Your task to perform on an android device: show emergency info Image 0: 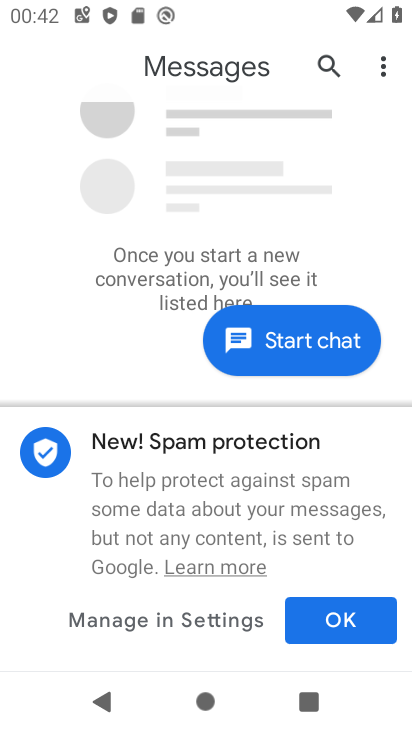
Step 0: press home button
Your task to perform on an android device: show emergency info Image 1: 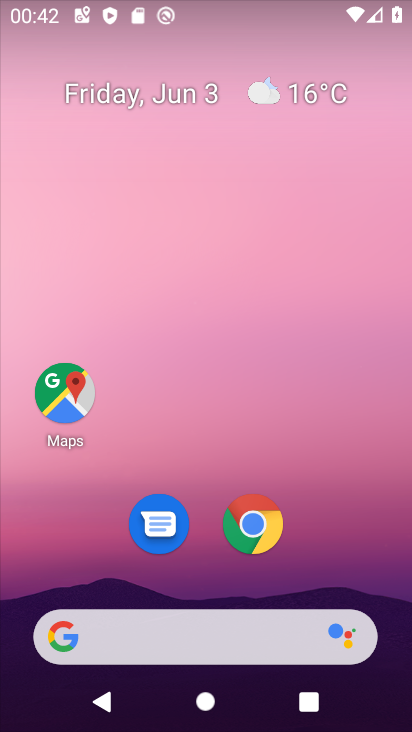
Step 1: drag from (197, 541) to (244, 66)
Your task to perform on an android device: show emergency info Image 2: 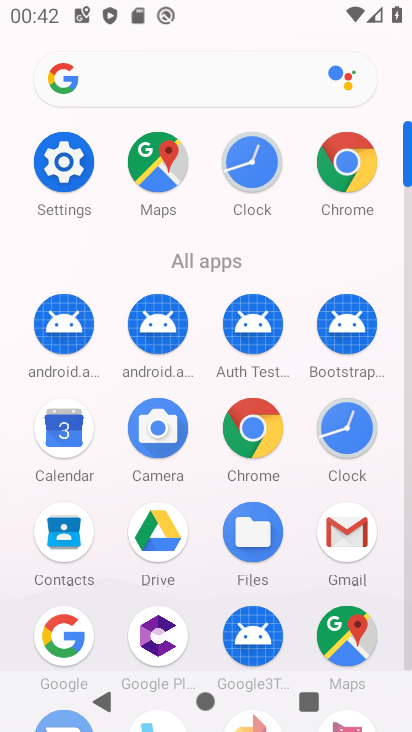
Step 2: click (58, 166)
Your task to perform on an android device: show emergency info Image 3: 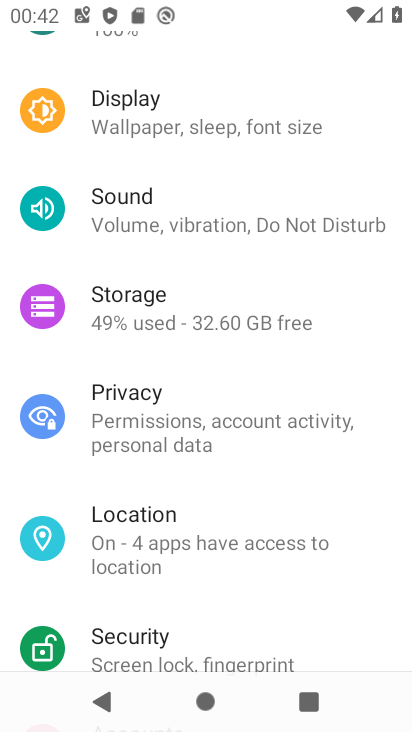
Step 3: drag from (221, 247) to (266, 79)
Your task to perform on an android device: show emergency info Image 4: 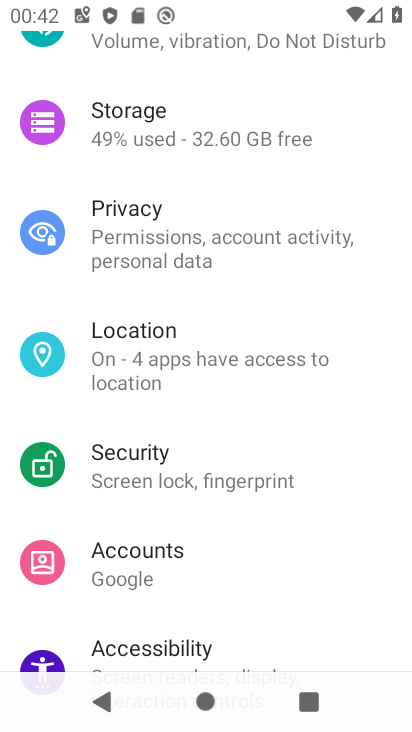
Step 4: drag from (226, 529) to (223, 89)
Your task to perform on an android device: show emergency info Image 5: 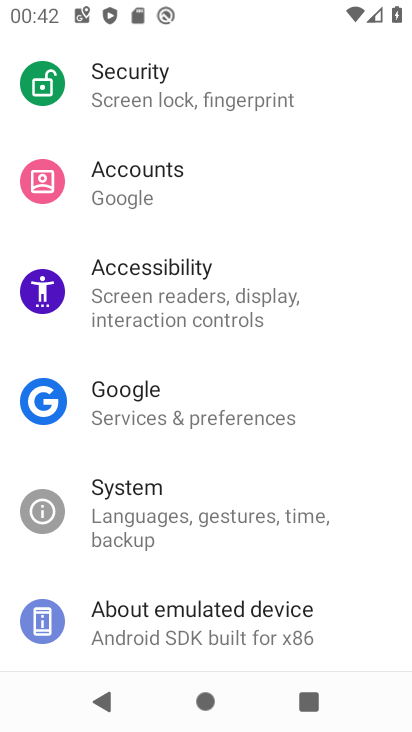
Step 5: click (207, 622)
Your task to perform on an android device: show emergency info Image 6: 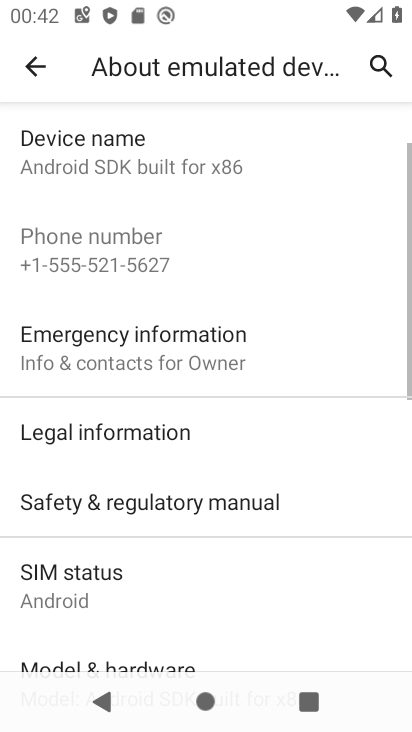
Step 6: click (177, 343)
Your task to perform on an android device: show emergency info Image 7: 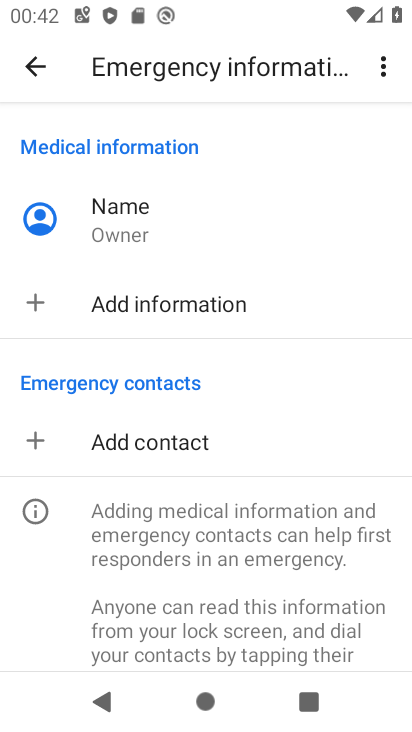
Step 7: task complete